Your task to perform on an android device: check the backup settings in the google photos Image 0: 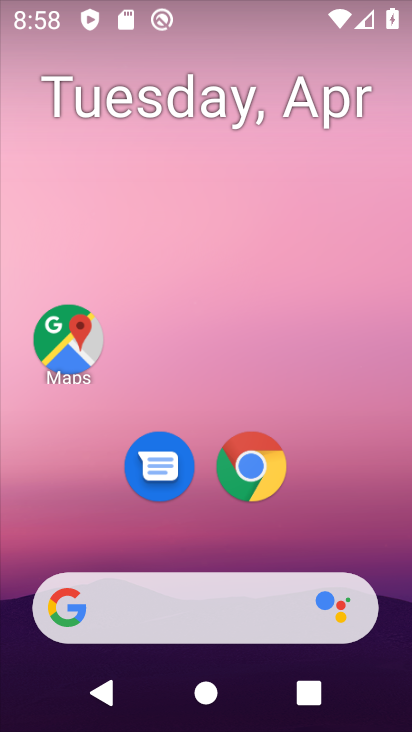
Step 0: drag from (315, 525) to (242, 39)
Your task to perform on an android device: check the backup settings in the google photos Image 1: 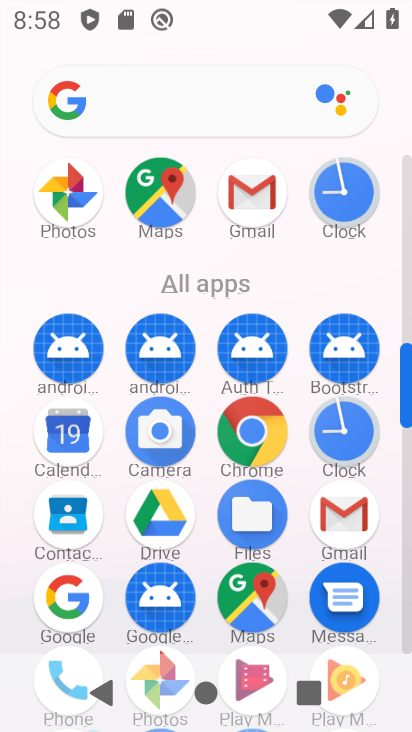
Step 1: click (54, 234)
Your task to perform on an android device: check the backup settings in the google photos Image 2: 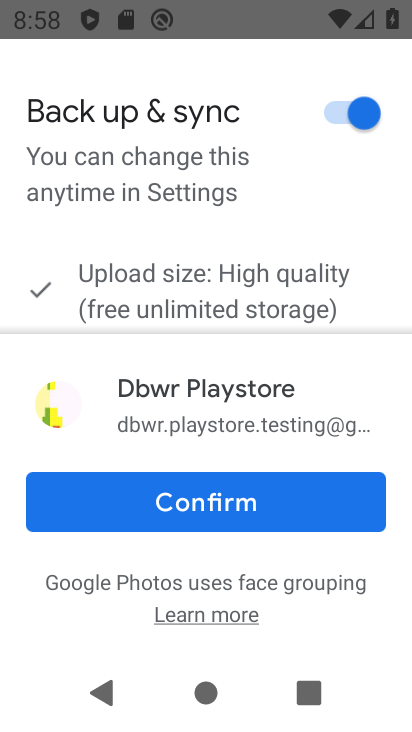
Step 2: click (120, 521)
Your task to perform on an android device: check the backup settings in the google photos Image 3: 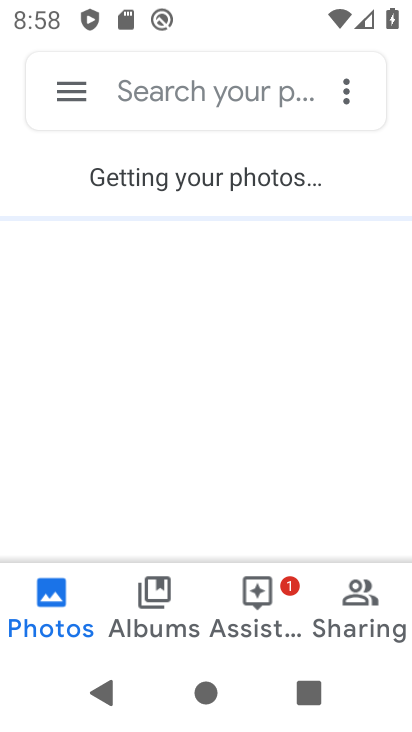
Step 3: click (68, 100)
Your task to perform on an android device: check the backup settings in the google photos Image 4: 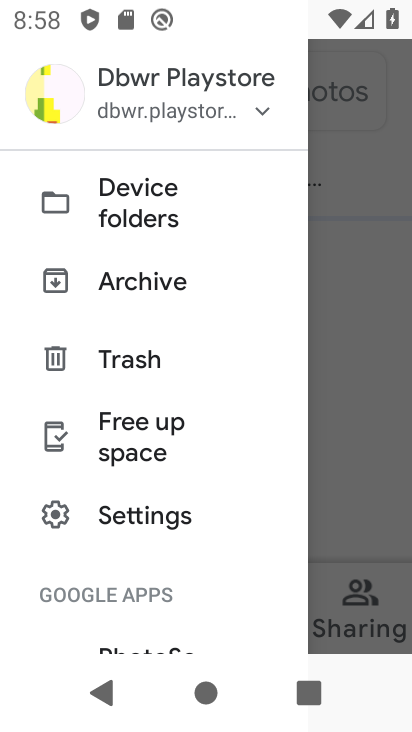
Step 4: click (63, 504)
Your task to perform on an android device: check the backup settings in the google photos Image 5: 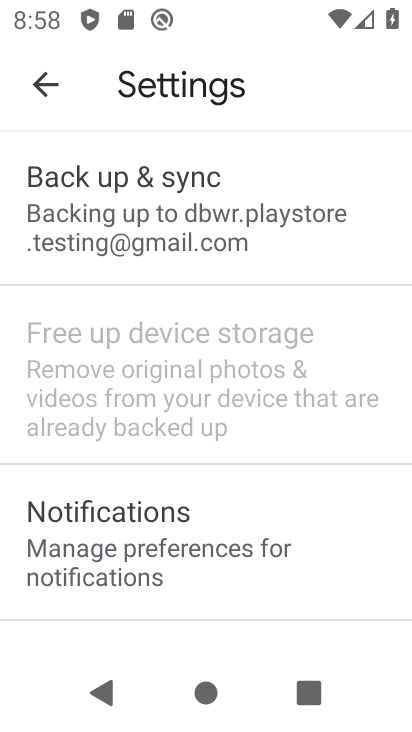
Step 5: click (207, 216)
Your task to perform on an android device: check the backup settings in the google photos Image 6: 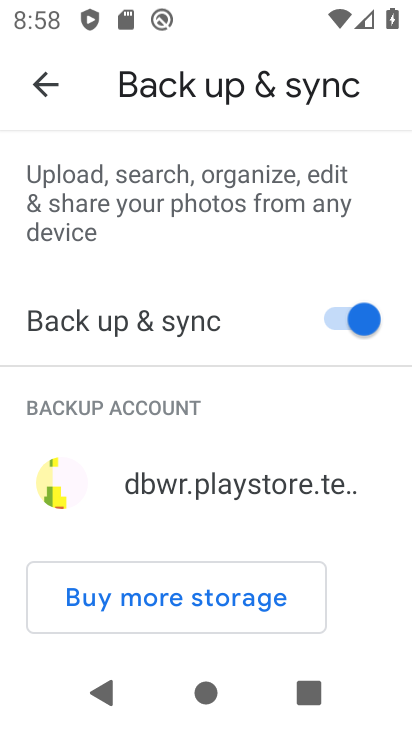
Step 6: task complete